Your task to perform on an android device: turn on bluetooth scan Image 0: 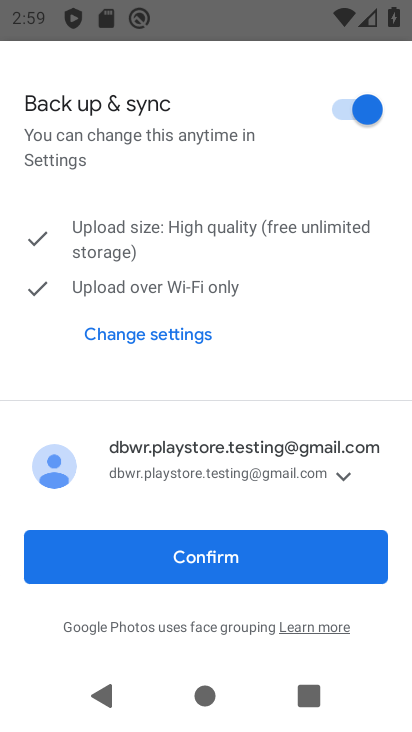
Step 0: press home button
Your task to perform on an android device: turn on bluetooth scan Image 1: 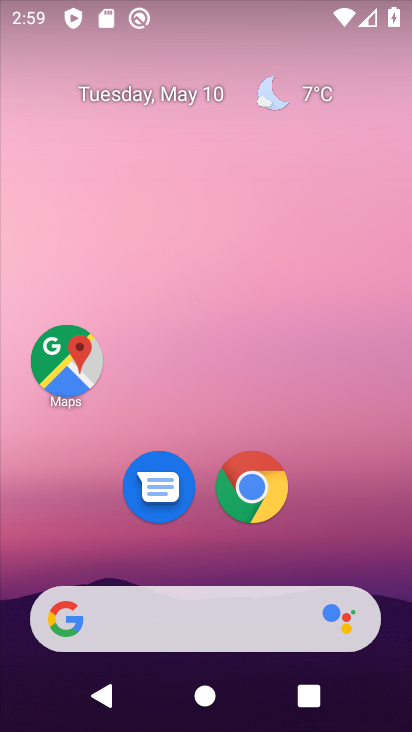
Step 1: drag from (345, 528) to (264, 137)
Your task to perform on an android device: turn on bluetooth scan Image 2: 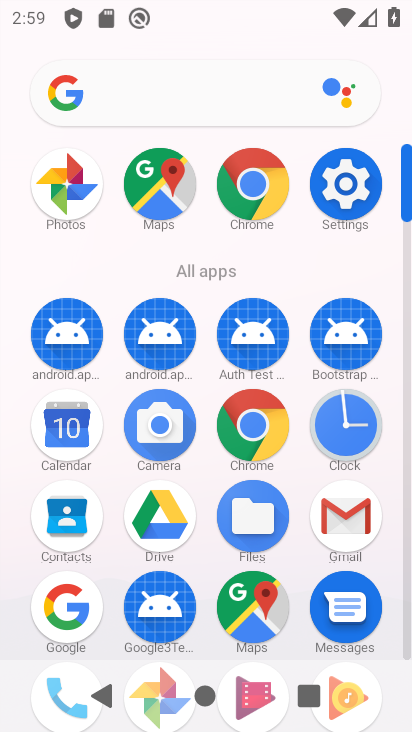
Step 2: click (355, 192)
Your task to perform on an android device: turn on bluetooth scan Image 3: 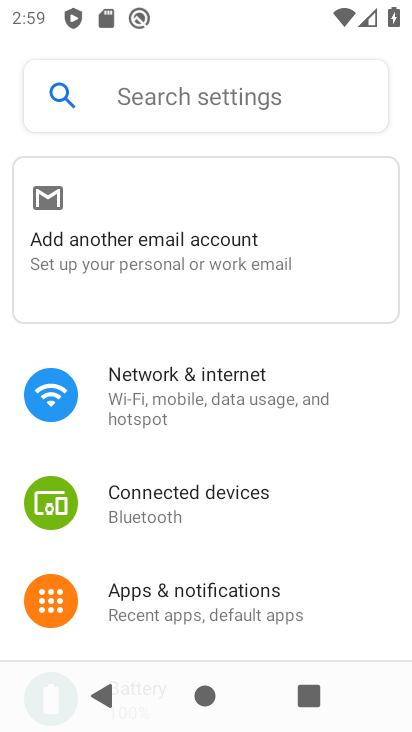
Step 3: drag from (282, 534) to (305, 140)
Your task to perform on an android device: turn on bluetooth scan Image 4: 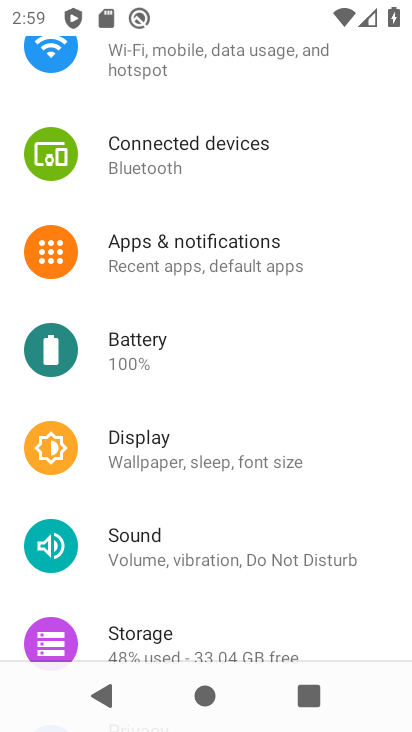
Step 4: drag from (266, 516) to (351, 205)
Your task to perform on an android device: turn on bluetooth scan Image 5: 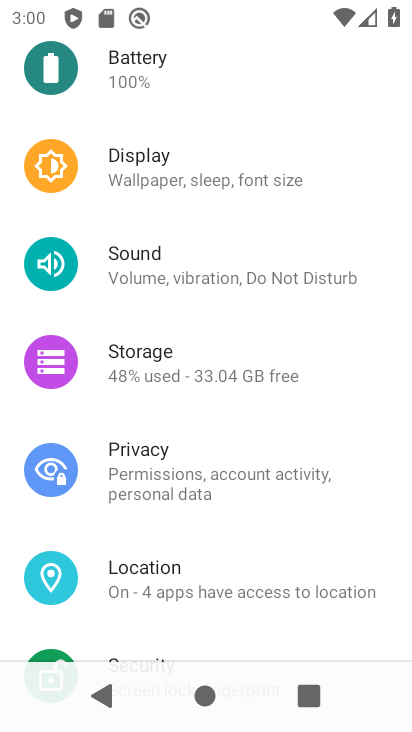
Step 5: drag from (269, 519) to (299, 260)
Your task to perform on an android device: turn on bluetooth scan Image 6: 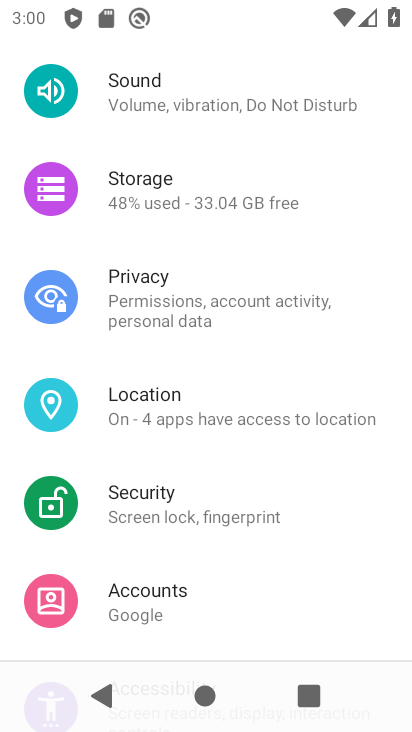
Step 6: click (195, 409)
Your task to perform on an android device: turn on bluetooth scan Image 7: 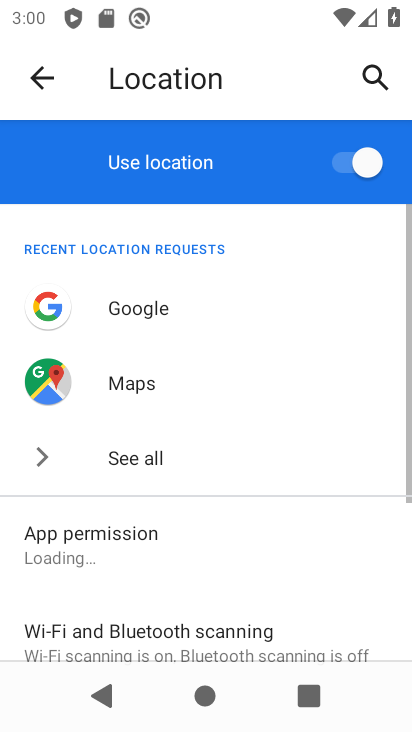
Step 7: drag from (317, 556) to (317, 232)
Your task to perform on an android device: turn on bluetooth scan Image 8: 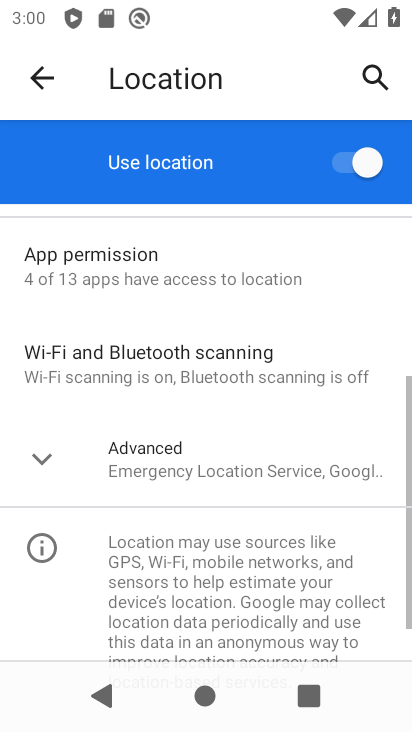
Step 8: click (221, 362)
Your task to perform on an android device: turn on bluetooth scan Image 9: 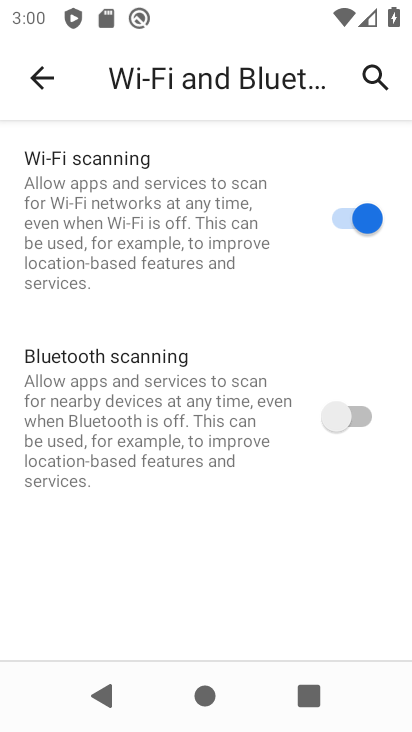
Step 9: click (362, 405)
Your task to perform on an android device: turn on bluetooth scan Image 10: 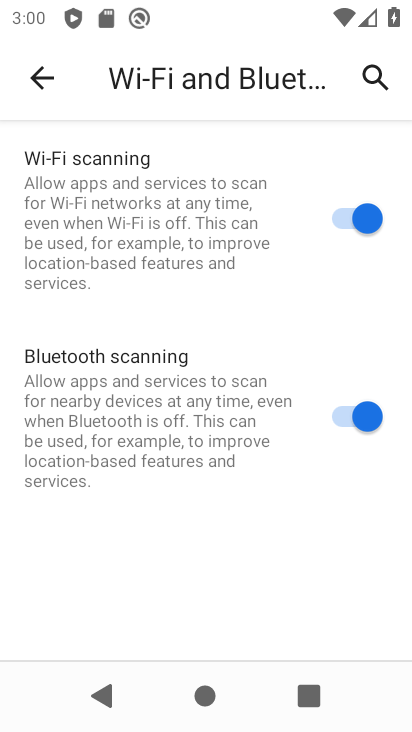
Step 10: task complete